Your task to perform on an android device: Open settings Image 0: 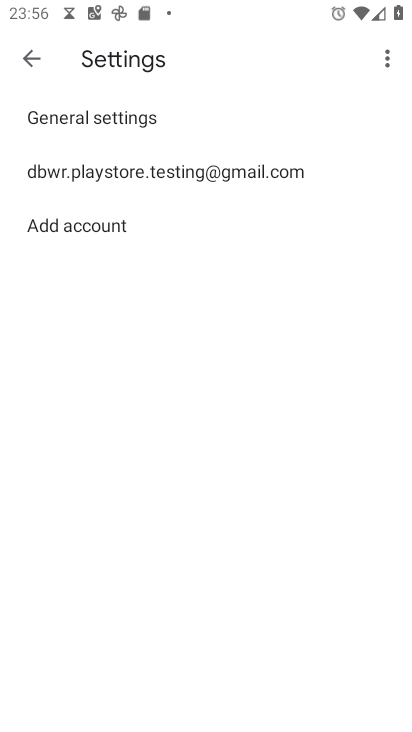
Step 0: press home button
Your task to perform on an android device: Open settings Image 1: 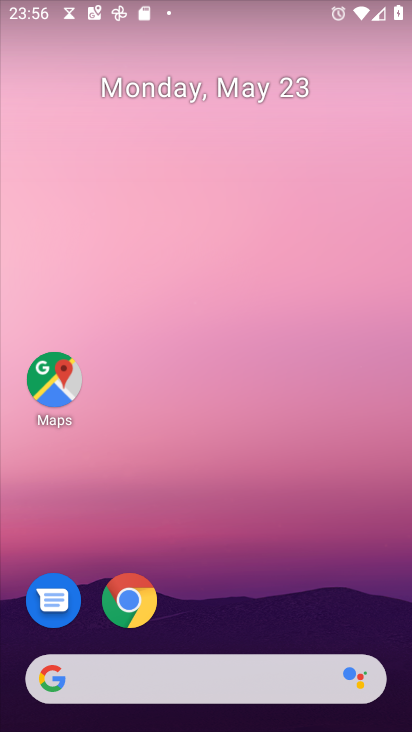
Step 1: drag from (232, 726) to (230, 53)
Your task to perform on an android device: Open settings Image 2: 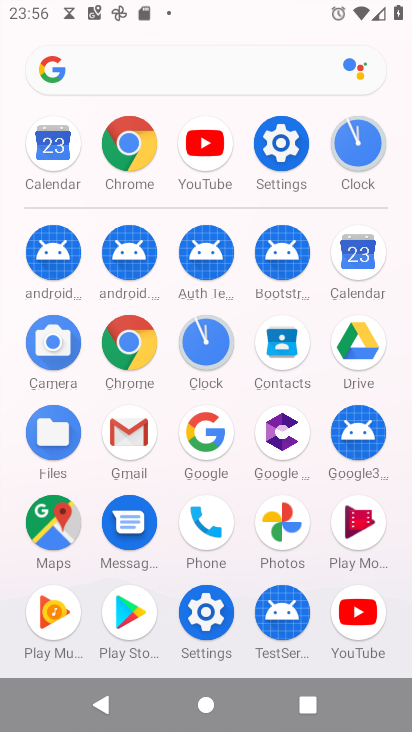
Step 2: click (282, 144)
Your task to perform on an android device: Open settings Image 3: 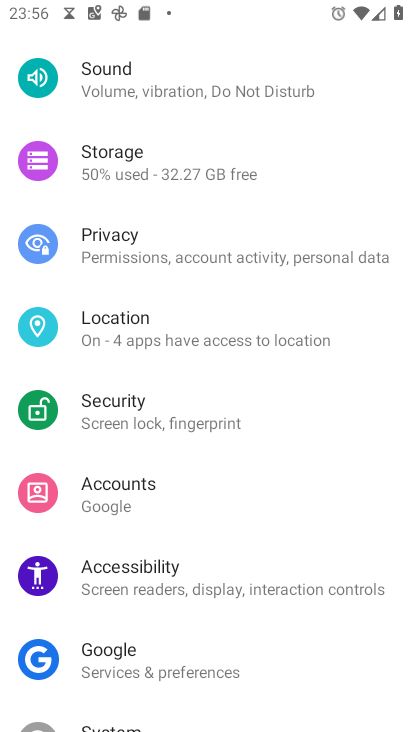
Step 3: task complete